Your task to perform on an android device: star an email in the gmail app Image 0: 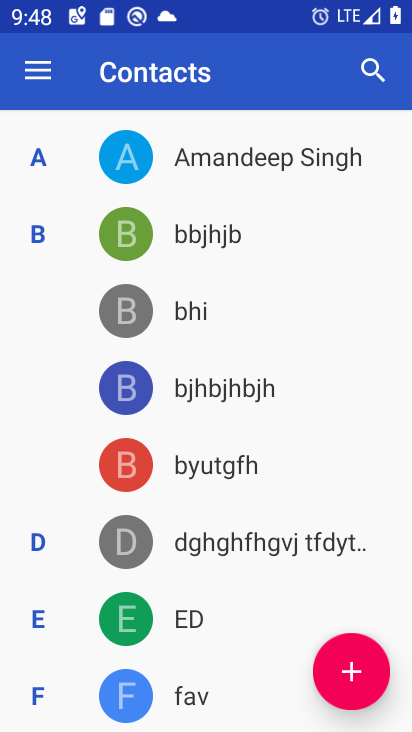
Step 0: press home button
Your task to perform on an android device: star an email in the gmail app Image 1: 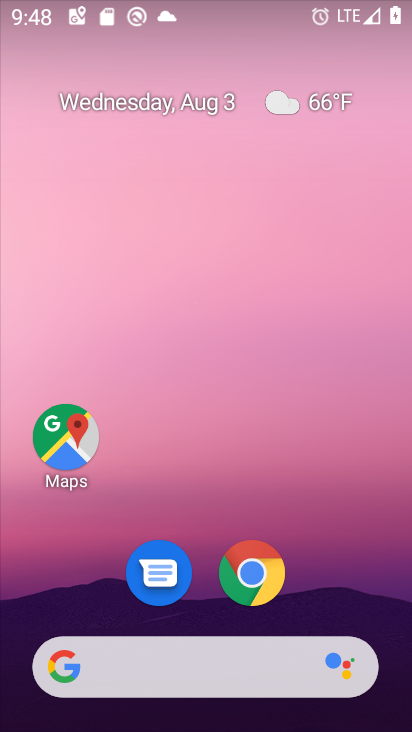
Step 1: drag from (338, 619) to (333, 3)
Your task to perform on an android device: star an email in the gmail app Image 2: 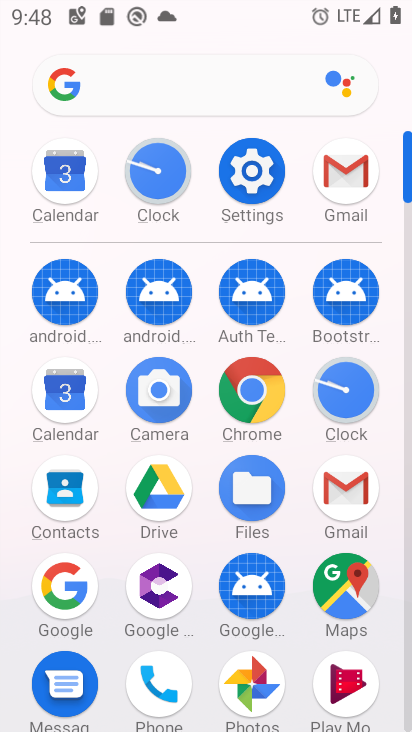
Step 2: click (347, 182)
Your task to perform on an android device: star an email in the gmail app Image 3: 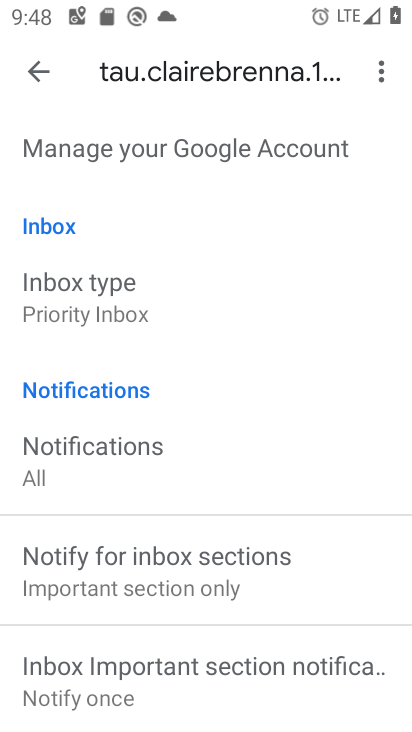
Step 3: click (32, 72)
Your task to perform on an android device: star an email in the gmail app Image 4: 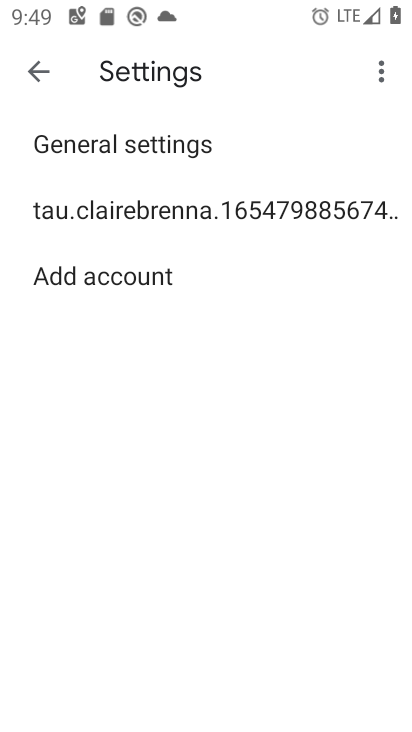
Step 4: click (32, 72)
Your task to perform on an android device: star an email in the gmail app Image 5: 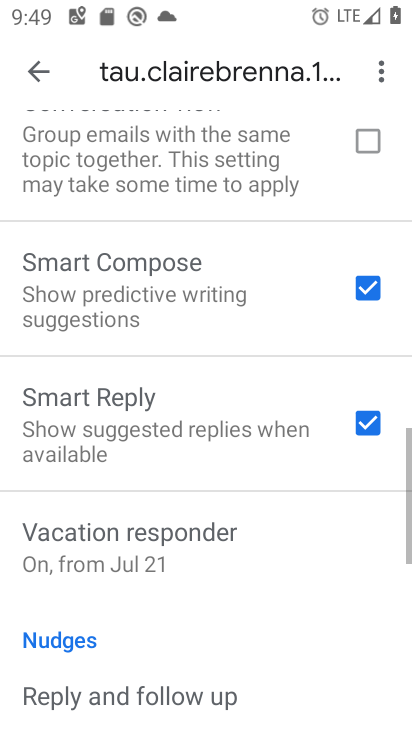
Step 5: click (32, 72)
Your task to perform on an android device: star an email in the gmail app Image 6: 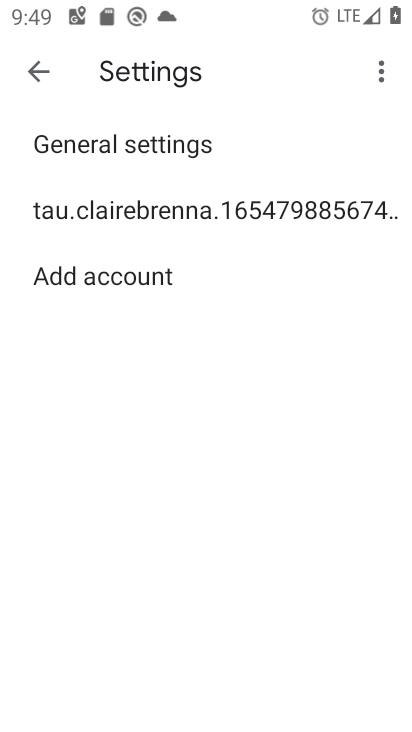
Step 6: click (33, 62)
Your task to perform on an android device: star an email in the gmail app Image 7: 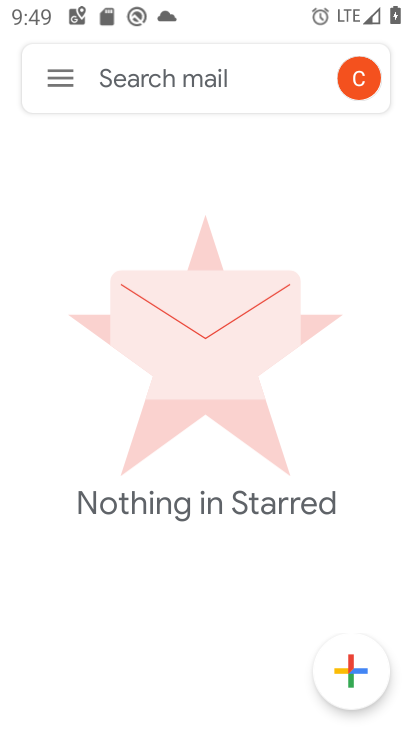
Step 7: click (57, 79)
Your task to perform on an android device: star an email in the gmail app Image 8: 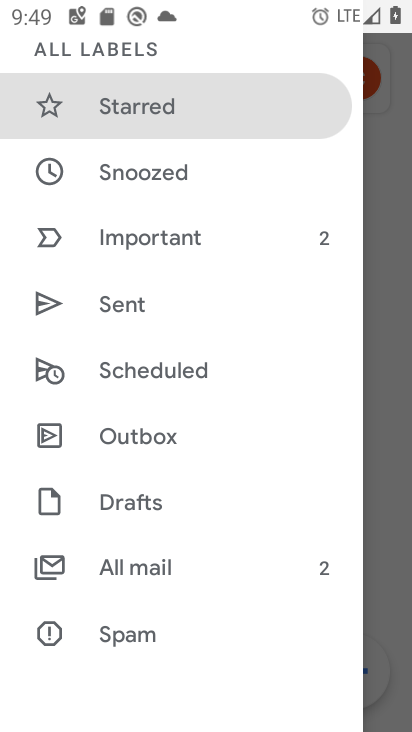
Step 8: click (78, 571)
Your task to perform on an android device: star an email in the gmail app Image 9: 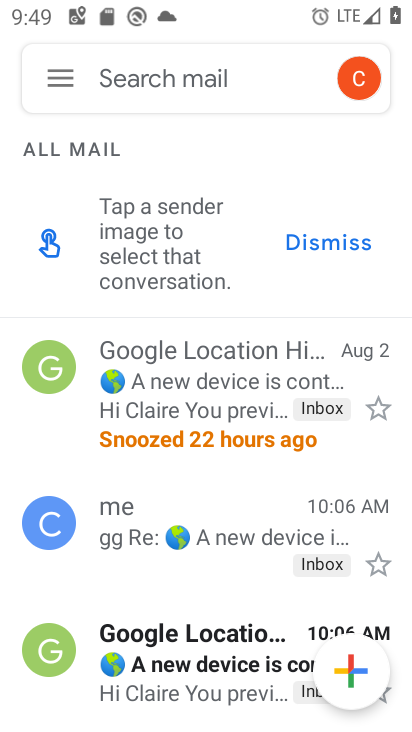
Step 9: click (385, 410)
Your task to perform on an android device: star an email in the gmail app Image 10: 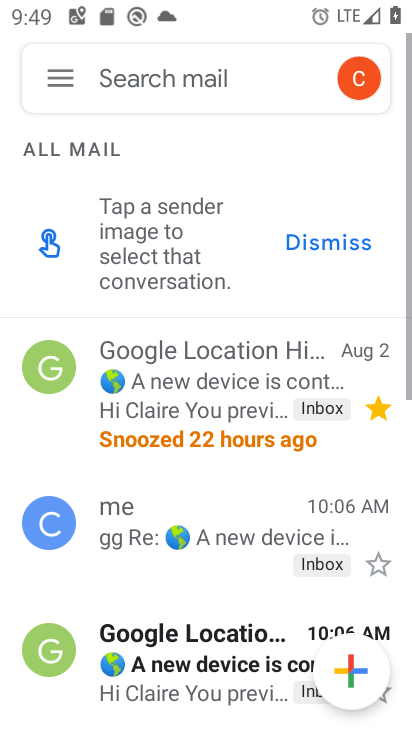
Step 10: task complete